Your task to perform on an android device: turn notification dots off Image 0: 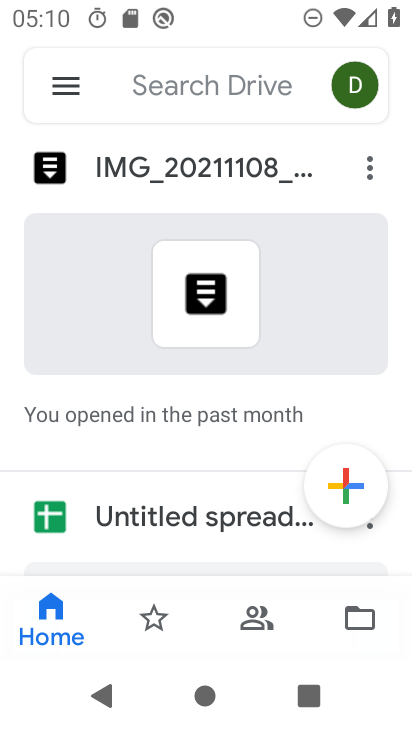
Step 0: press home button
Your task to perform on an android device: turn notification dots off Image 1: 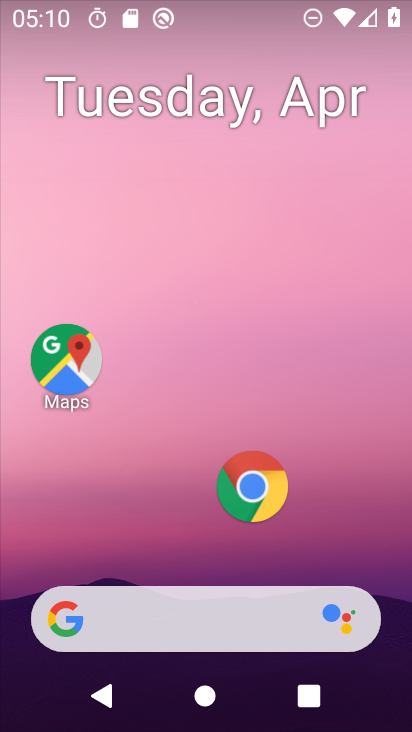
Step 1: drag from (147, 393) to (193, 10)
Your task to perform on an android device: turn notification dots off Image 2: 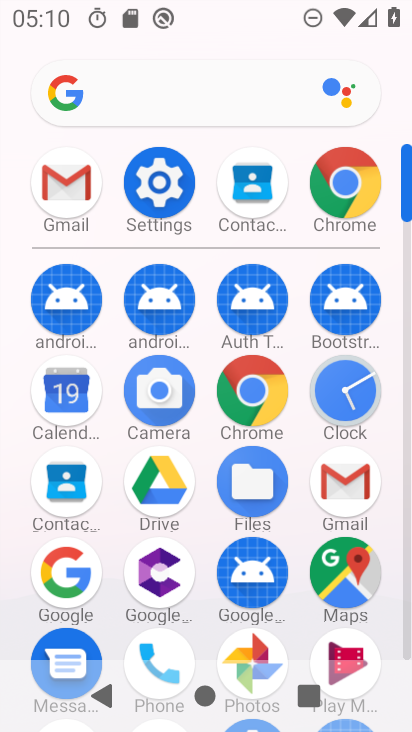
Step 2: click (145, 189)
Your task to perform on an android device: turn notification dots off Image 3: 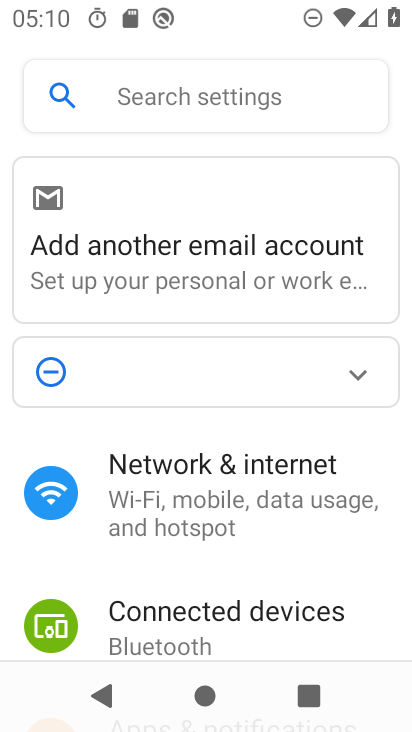
Step 3: drag from (223, 592) to (311, 291)
Your task to perform on an android device: turn notification dots off Image 4: 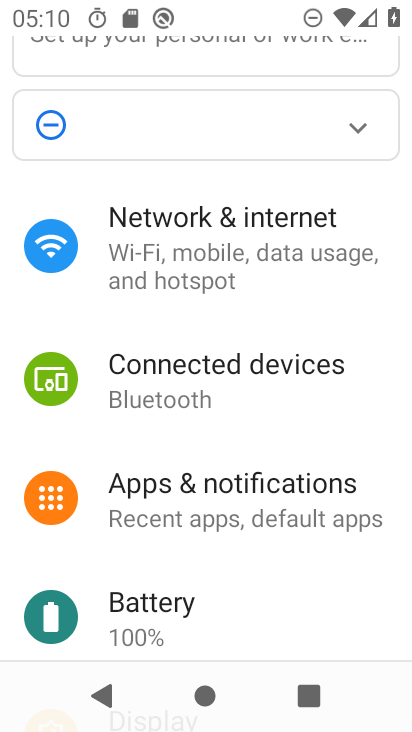
Step 4: click (238, 494)
Your task to perform on an android device: turn notification dots off Image 5: 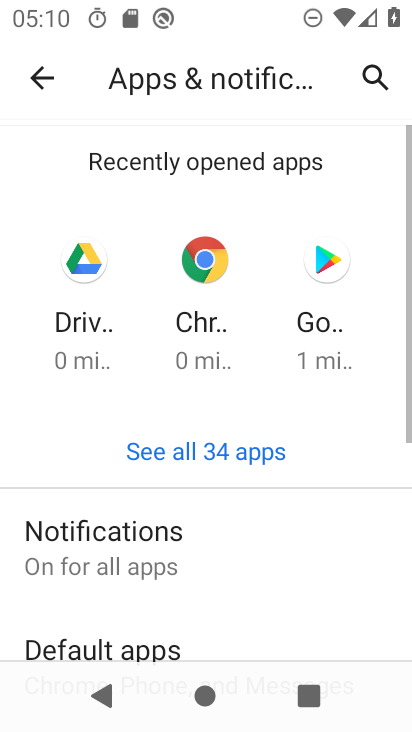
Step 5: drag from (212, 563) to (284, 197)
Your task to perform on an android device: turn notification dots off Image 6: 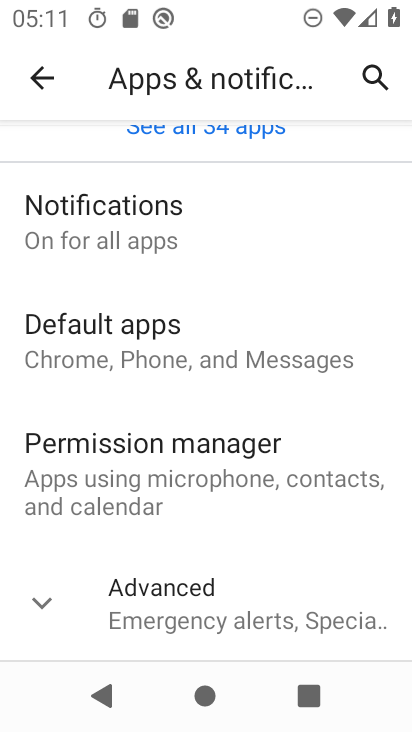
Step 6: click (151, 211)
Your task to perform on an android device: turn notification dots off Image 7: 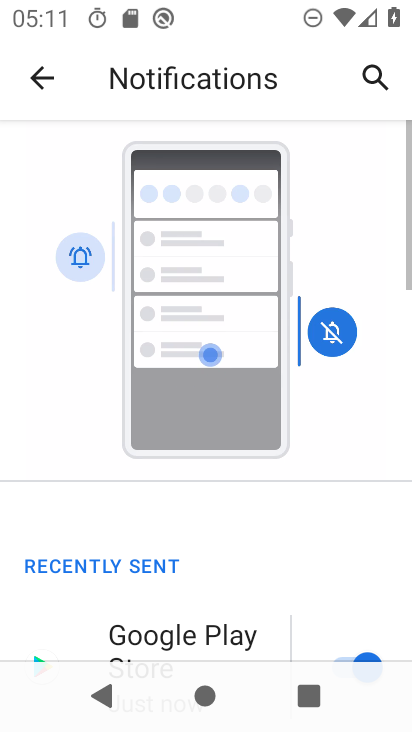
Step 7: drag from (173, 573) to (294, 15)
Your task to perform on an android device: turn notification dots off Image 8: 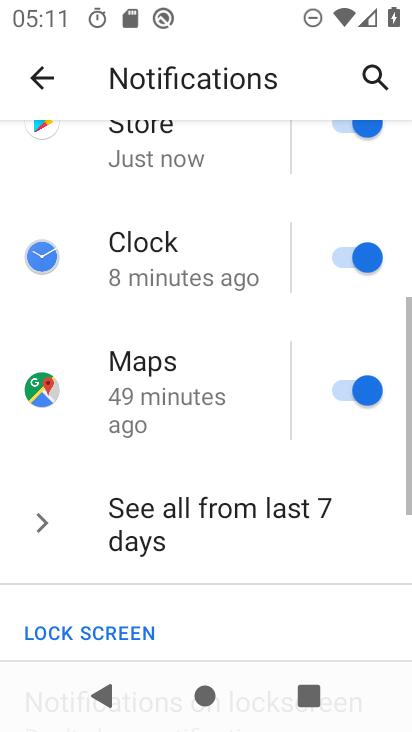
Step 8: drag from (221, 457) to (260, 31)
Your task to perform on an android device: turn notification dots off Image 9: 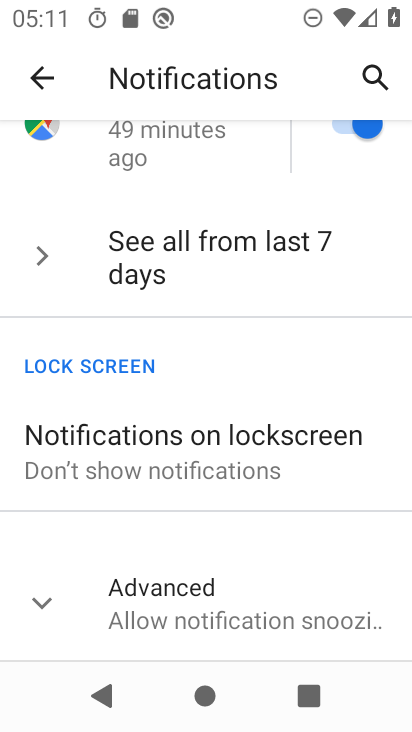
Step 9: drag from (195, 558) to (286, 16)
Your task to perform on an android device: turn notification dots off Image 10: 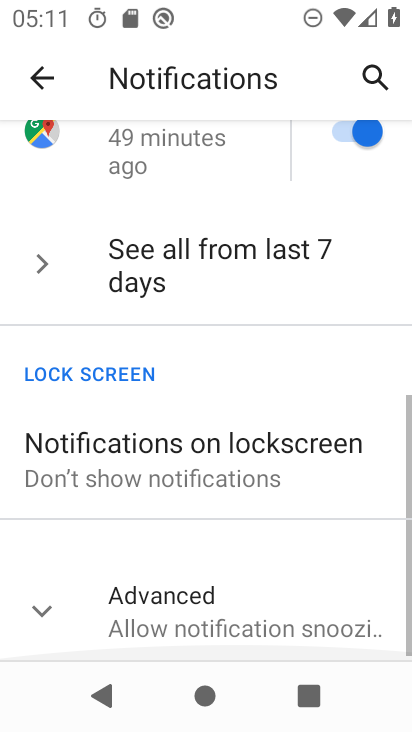
Step 10: click (202, 571)
Your task to perform on an android device: turn notification dots off Image 11: 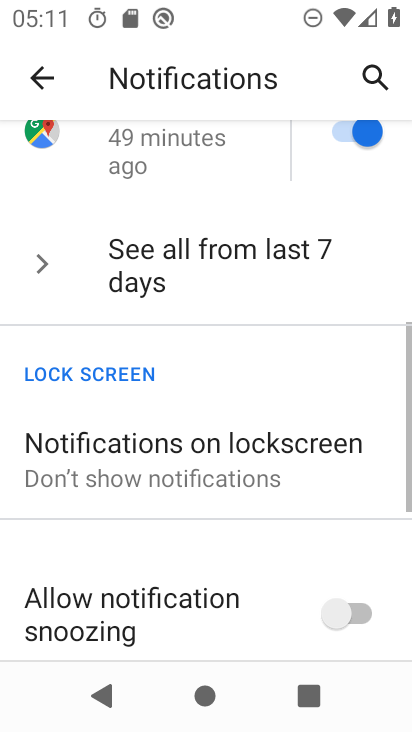
Step 11: drag from (203, 520) to (262, 69)
Your task to perform on an android device: turn notification dots off Image 12: 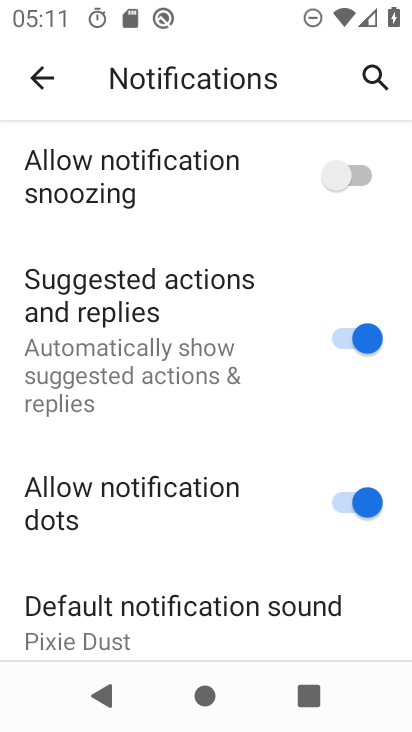
Step 12: click (356, 511)
Your task to perform on an android device: turn notification dots off Image 13: 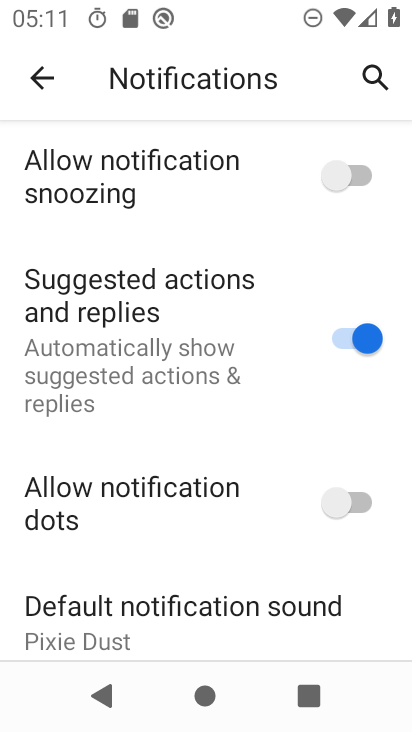
Step 13: task complete